Your task to perform on an android device: Open Chrome and go to settings Image 0: 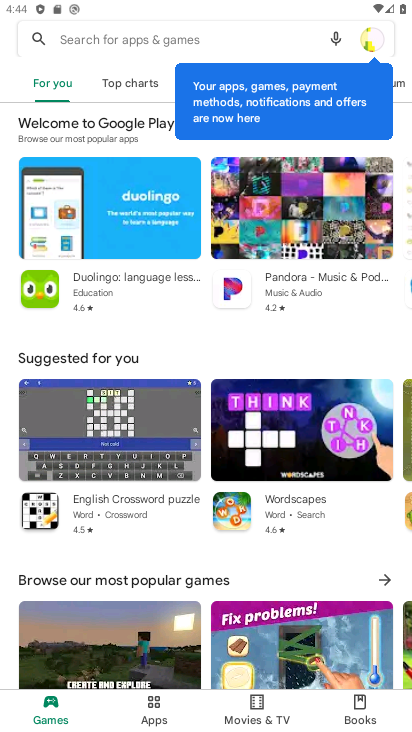
Step 0: press home button
Your task to perform on an android device: Open Chrome and go to settings Image 1: 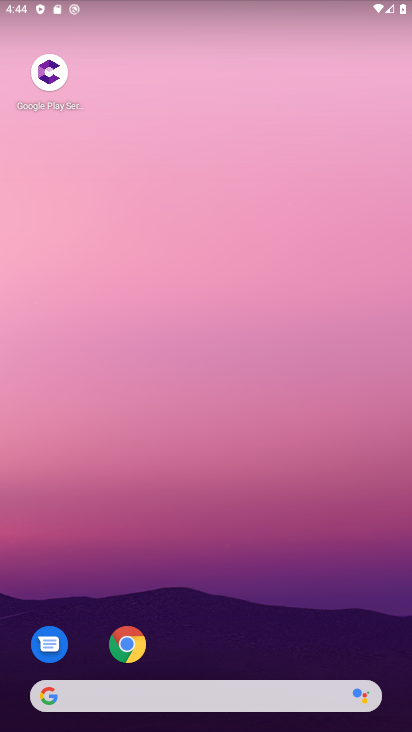
Step 1: click (126, 640)
Your task to perform on an android device: Open Chrome and go to settings Image 2: 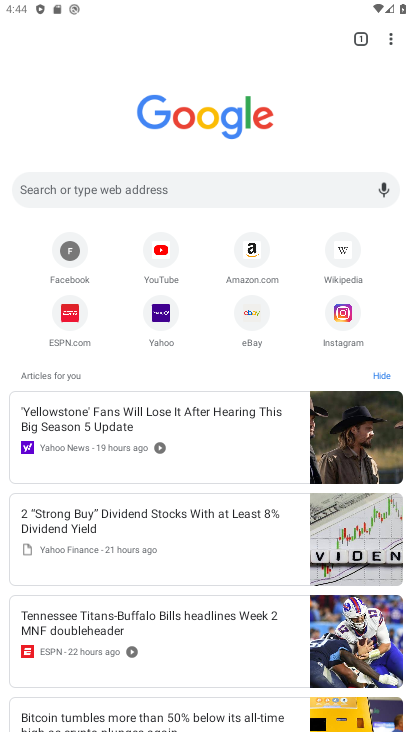
Step 2: click (391, 42)
Your task to perform on an android device: Open Chrome and go to settings Image 3: 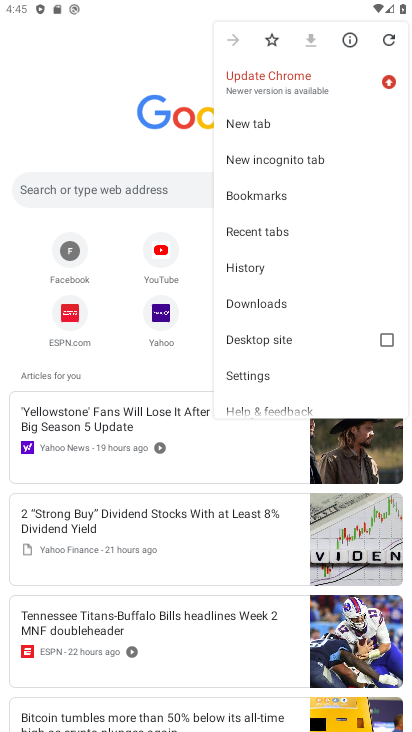
Step 3: click (280, 375)
Your task to perform on an android device: Open Chrome and go to settings Image 4: 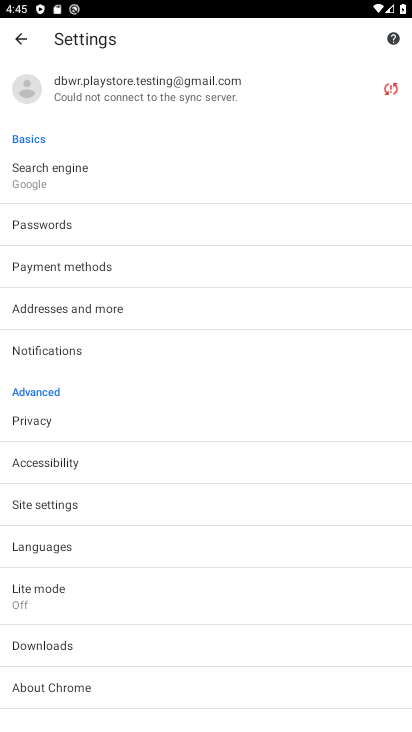
Step 4: task complete